Your task to perform on an android device: Turn on the flashlight Image 0: 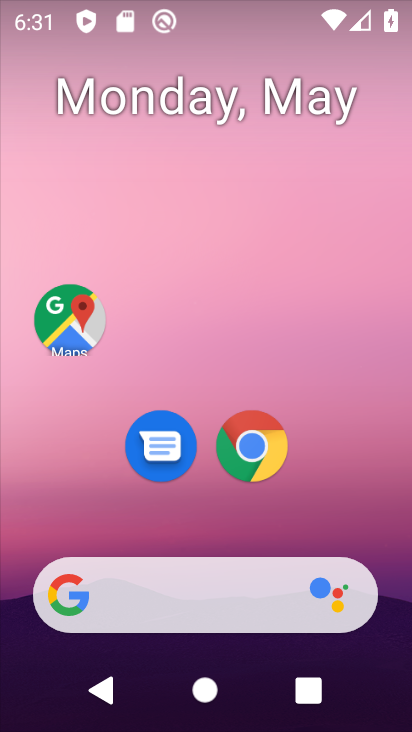
Step 0: drag from (373, 503) to (205, 15)
Your task to perform on an android device: Turn on the flashlight Image 1: 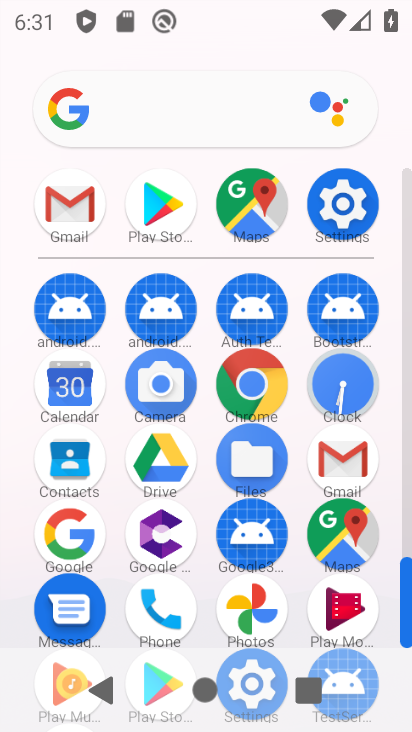
Step 1: click (344, 196)
Your task to perform on an android device: Turn on the flashlight Image 2: 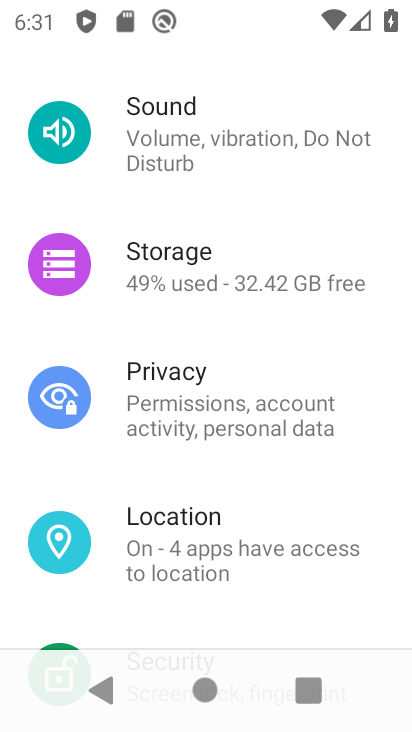
Step 2: drag from (144, 205) to (234, 634)
Your task to perform on an android device: Turn on the flashlight Image 3: 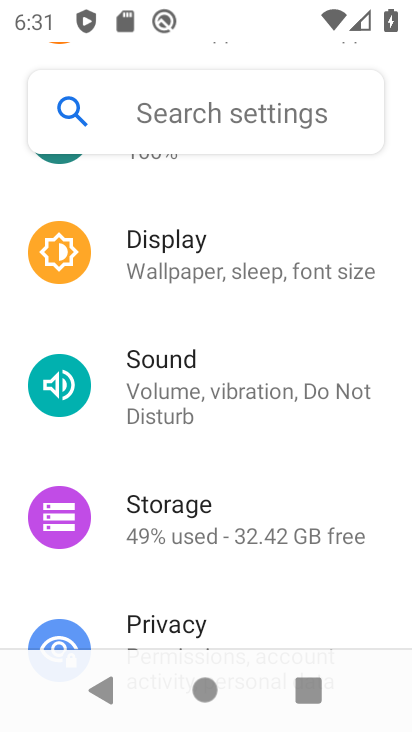
Step 3: click (190, 265)
Your task to perform on an android device: Turn on the flashlight Image 4: 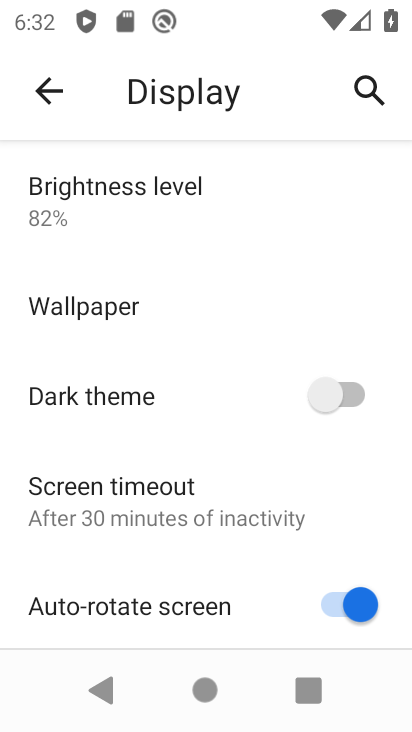
Step 4: task complete